Your task to perform on an android device: Open the Play Movies app and select the watchlist tab. Image 0: 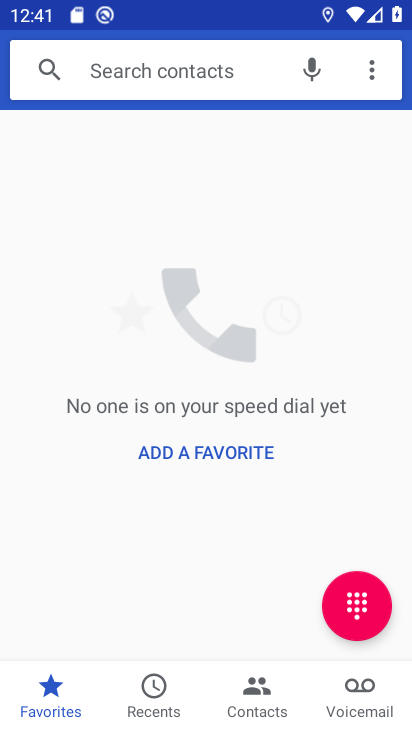
Step 0: press home button
Your task to perform on an android device: Open the Play Movies app and select the watchlist tab. Image 1: 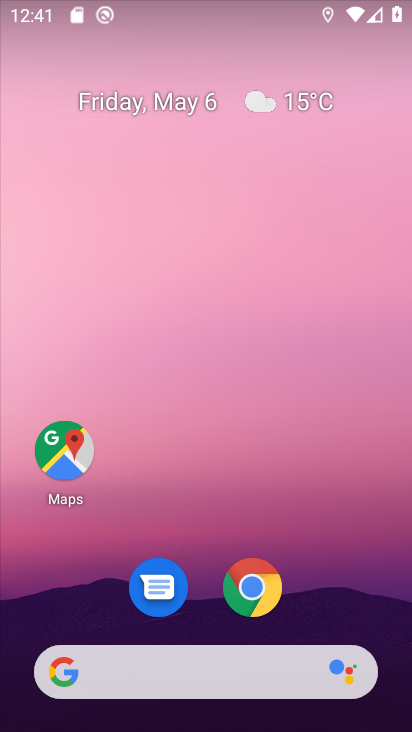
Step 1: drag from (338, 589) to (236, 49)
Your task to perform on an android device: Open the Play Movies app and select the watchlist tab. Image 2: 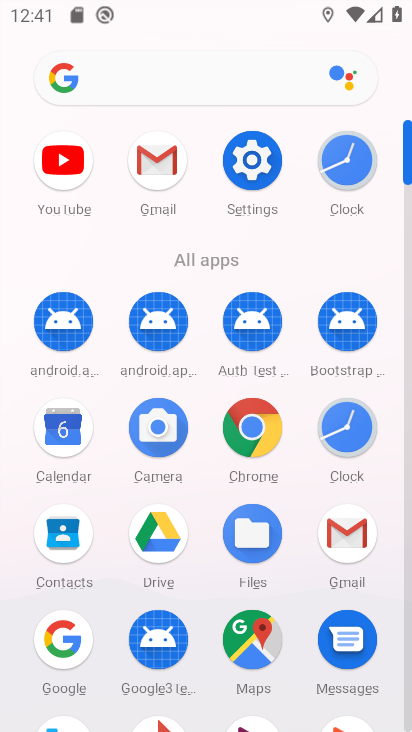
Step 2: drag from (209, 608) to (201, 149)
Your task to perform on an android device: Open the Play Movies app and select the watchlist tab. Image 3: 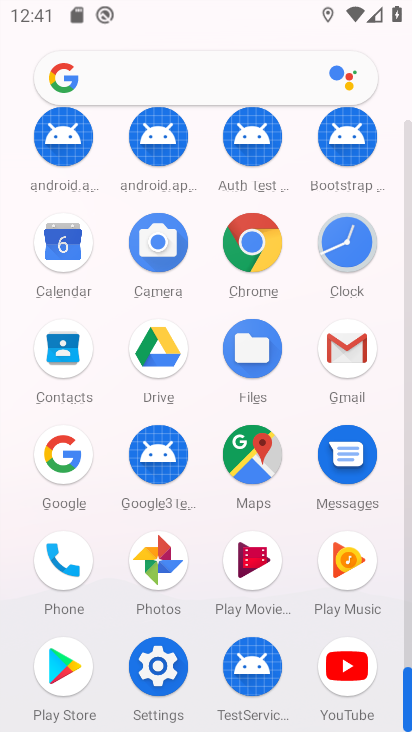
Step 3: click (243, 562)
Your task to perform on an android device: Open the Play Movies app and select the watchlist tab. Image 4: 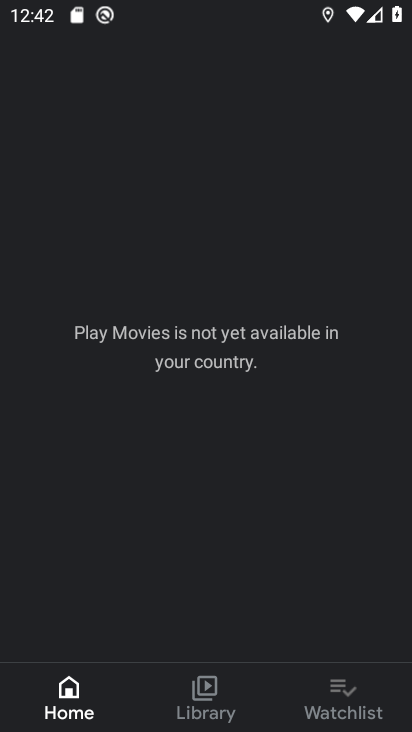
Step 4: click (327, 693)
Your task to perform on an android device: Open the Play Movies app and select the watchlist tab. Image 5: 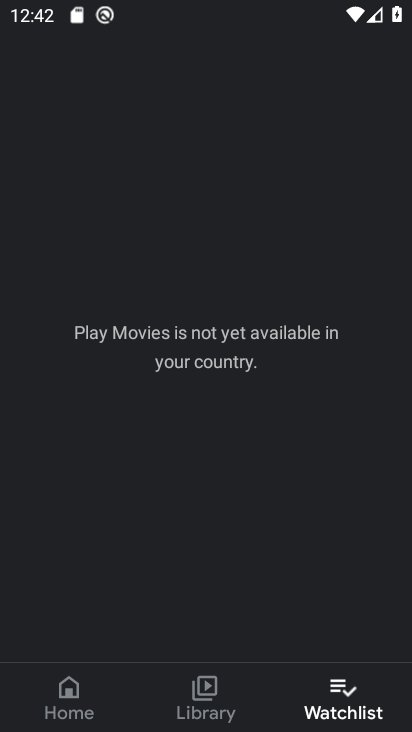
Step 5: task complete